Your task to perform on an android device: What's the weather? Image 0: 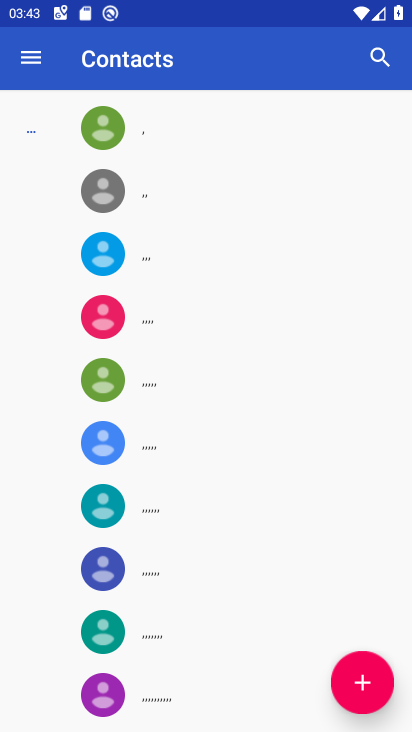
Step 0: press home button
Your task to perform on an android device: What's the weather? Image 1: 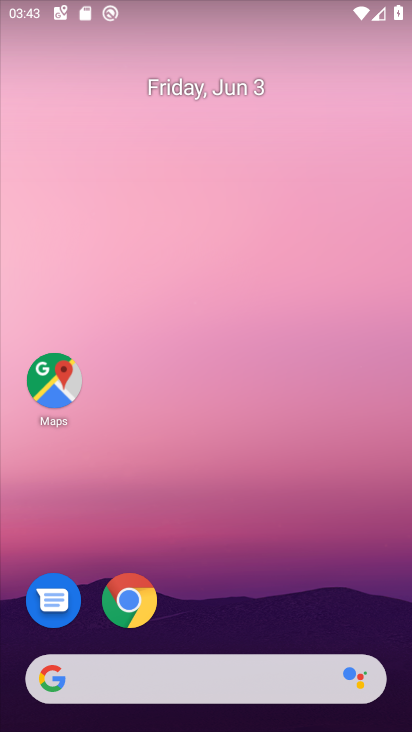
Step 1: click (124, 599)
Your task to perform on an android device: What's the weather? Image 2: 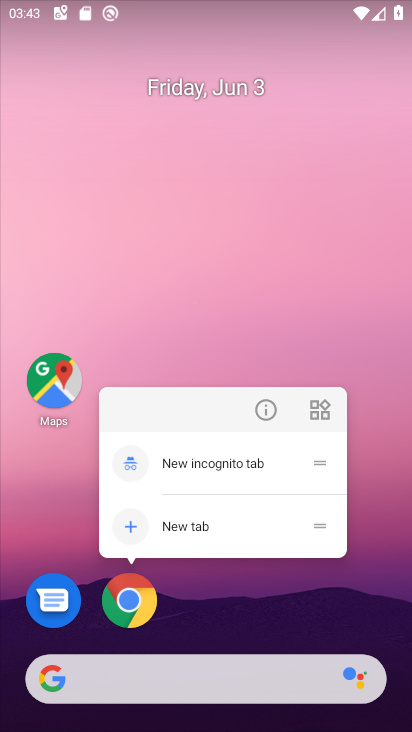
Step 2: click (131, 601)
Your task to perform on an android device: What's the weather? Image 3: 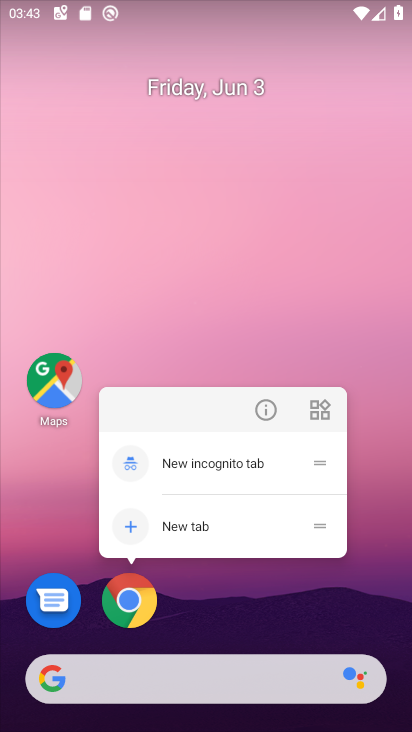
Step 3: click (135, 620)
Your task to perform on an android device: What's the weather? Image 4: 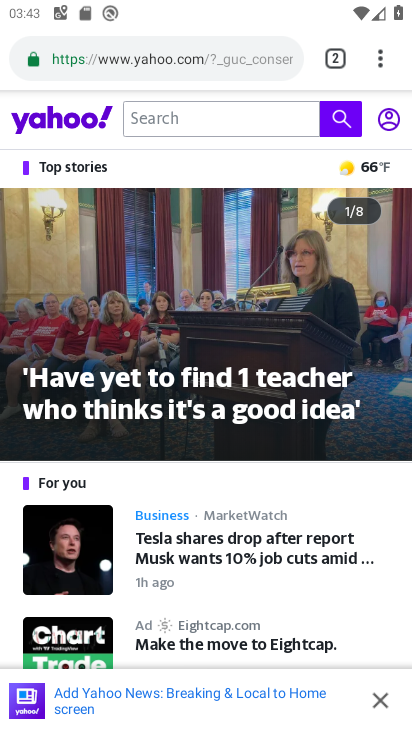
Step 4: click (189, 64)
Your task to perform on an android device: What's the weather? Image 5: 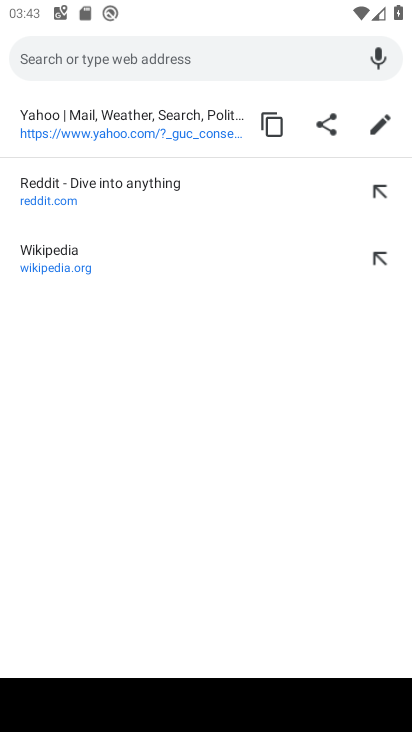
Step 5: type "weather"
Your task to perform on an android device: What's the weather? Image 6: 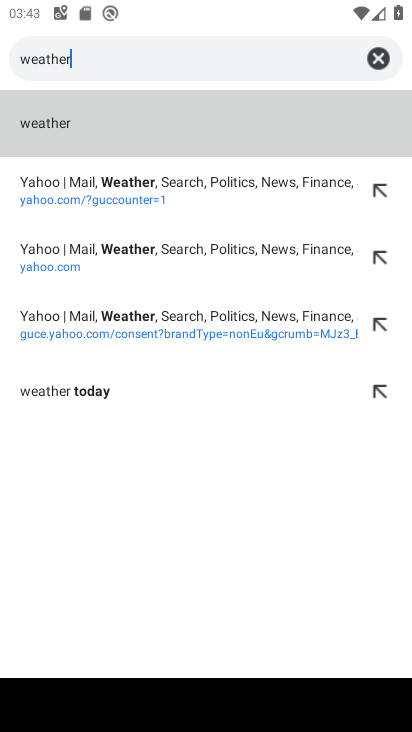
Step 6: click (24, 132)
Your task to perform on an android device: What's the weather? Image 7: 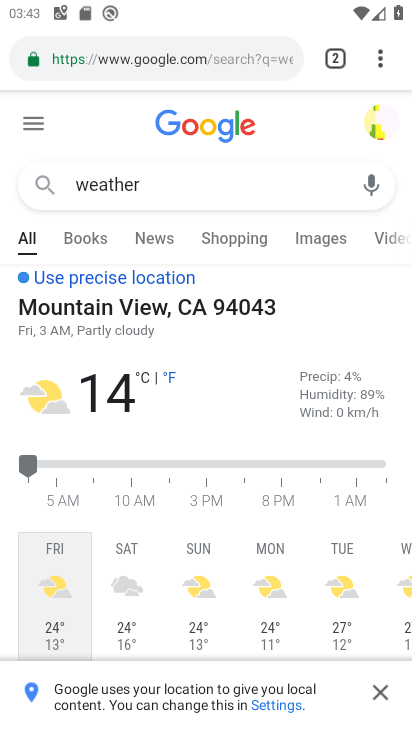
Step 7: task complete